Your task to perform on an android device: Go to Reddit.com Image 0: 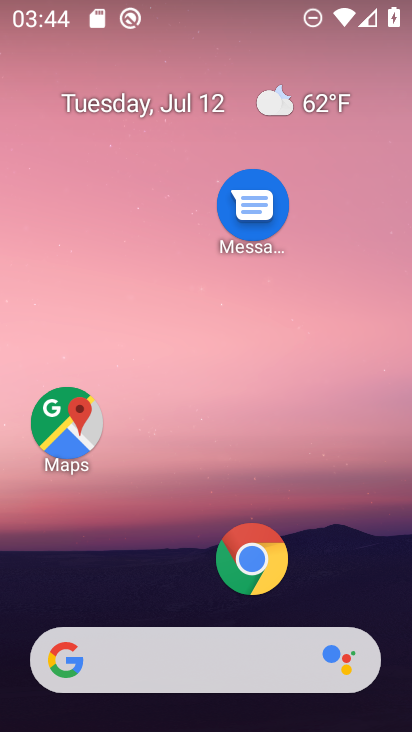
Step 0: click (246, 544)
Your task to perform on an android device: Go to Reddit.com Image 1: 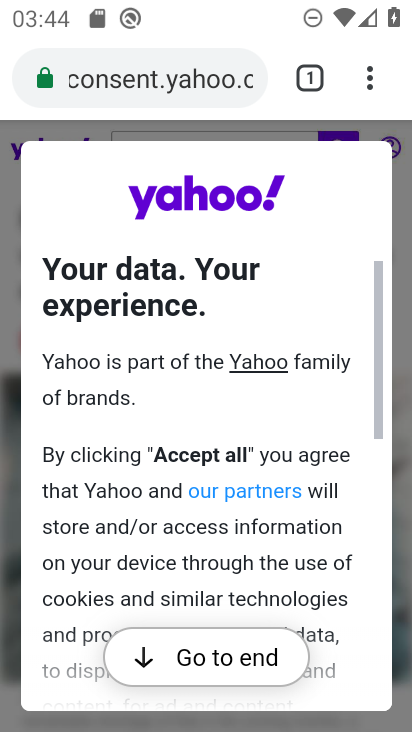
Step 1: click (320, 65)
Your task to perform on an android device: Go to Reddit.com Image 2: 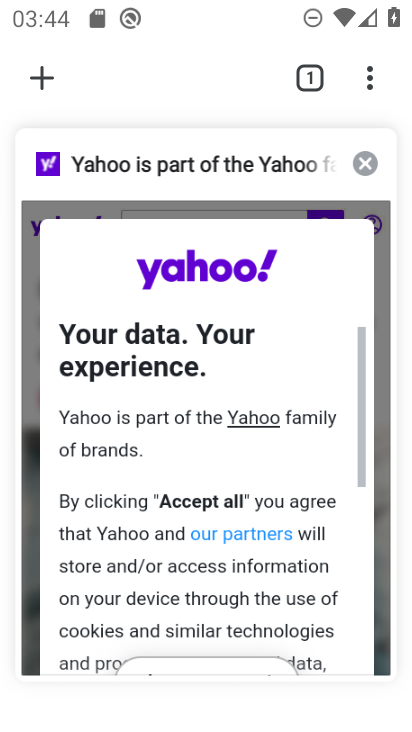
Step 2: click (40, 66)
Your task to perform on an android device: Go to Reddit.com Image 3: 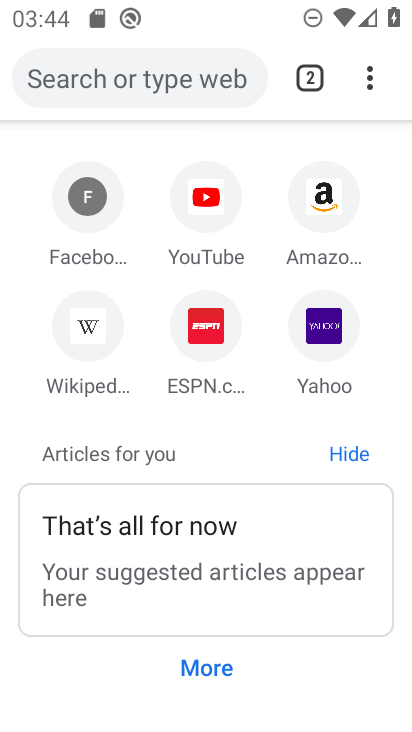
Step 3: click (119, 80)
Your task to perform on an android device: Go to Reddit.com Image 4: 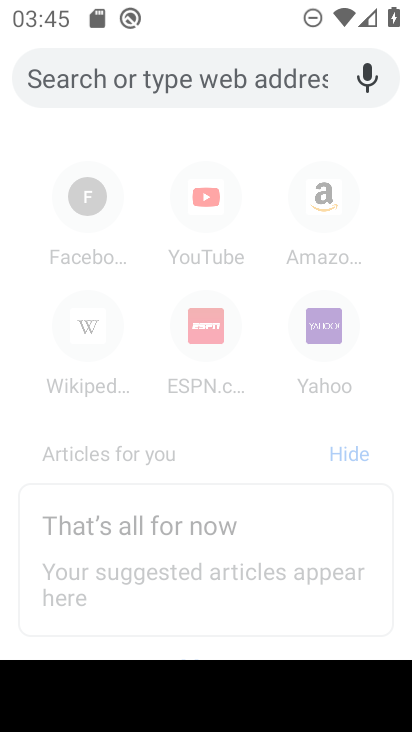
Step 4: type "reddit.com"
Your task to perform on an android device: Go to Reddit.com Image 5: 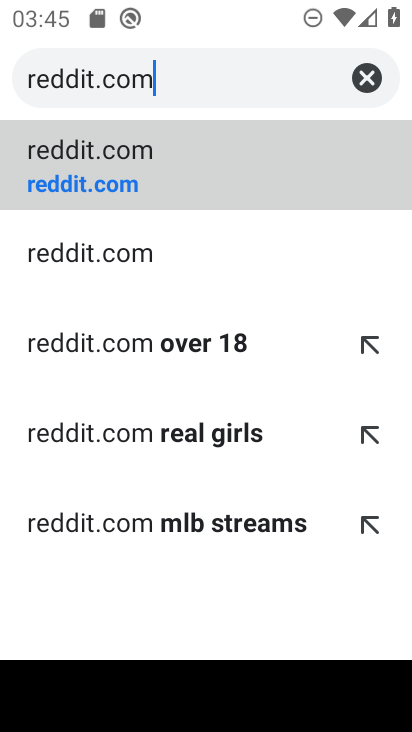
Step 5: click (199, 172)
Your task to perform on an android device: Go to Reddit.com Image 6: 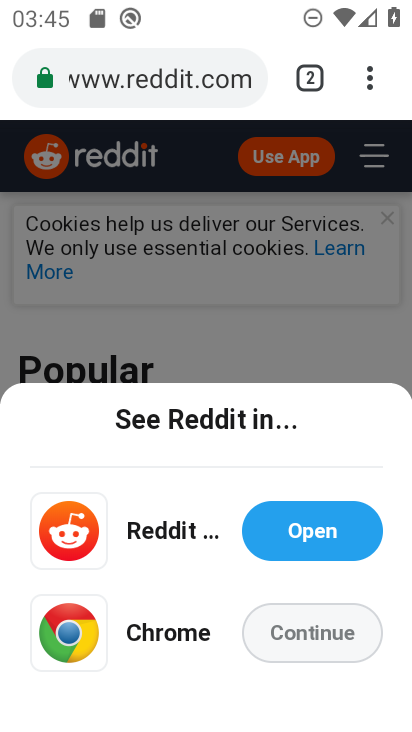
Step 6: task complete